Your task to perform on an android device: change timer sound Image 0: 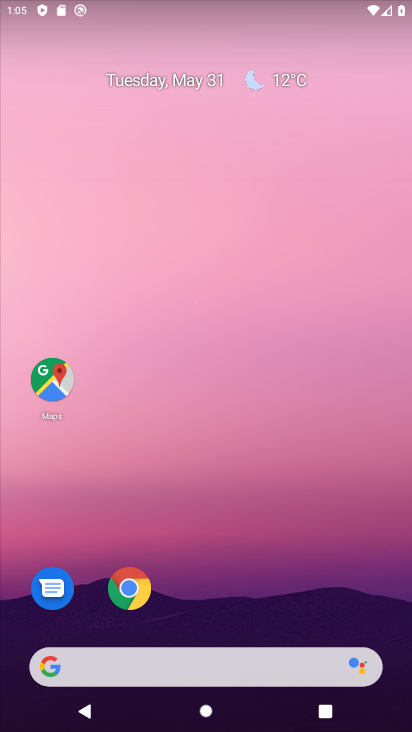
Step 0: drag from (397, 519) to (369, 136)
Your task to perform on an android device: change timer sound Image 1: 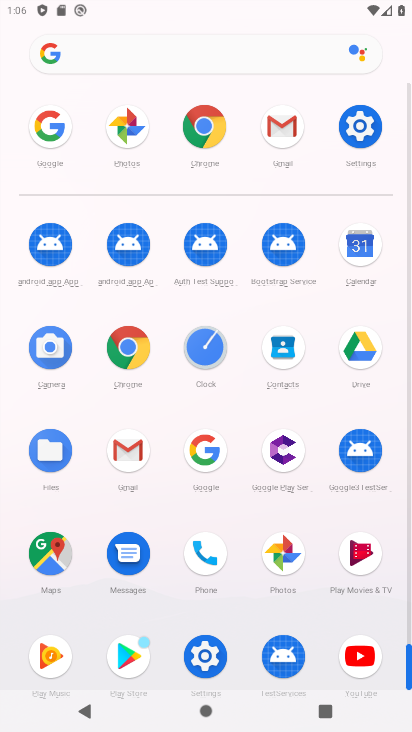
Step 1: click (363, 131)
Your task to perform on an android device: change timer sound Image 2: 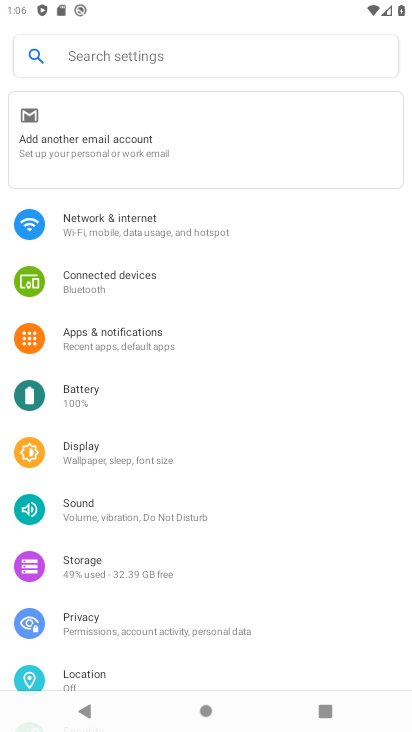
Step 2: press back button
Your task to perform on an android device: change timer sound Image 3: 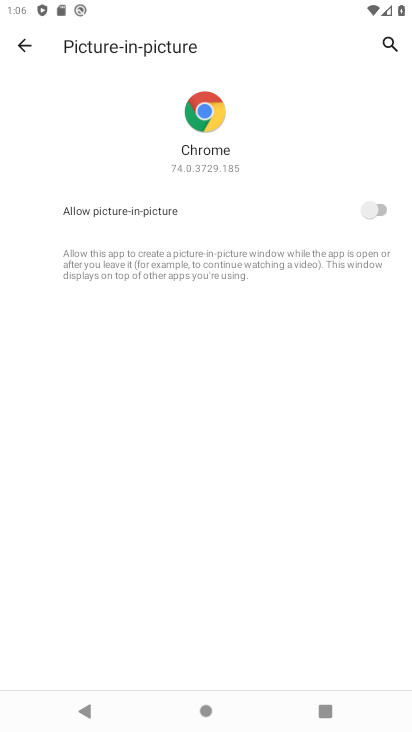
Step 3: press back button
Your task to perform on an android device: change timer sound Image 4: 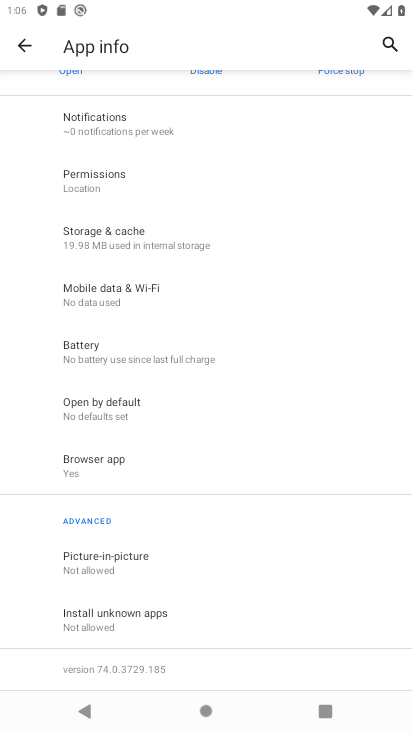
Step 4: drag from (282, 187) to (319, 435)
Your task to perform on an android device: change timer sound Image 5: 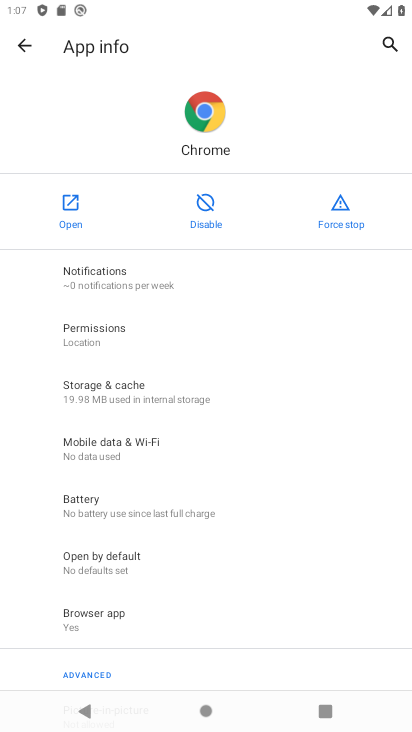
Step 5: drag from (249, 585) to (238, 333)
Your task to perform on an android device: change timer sound Image 6: 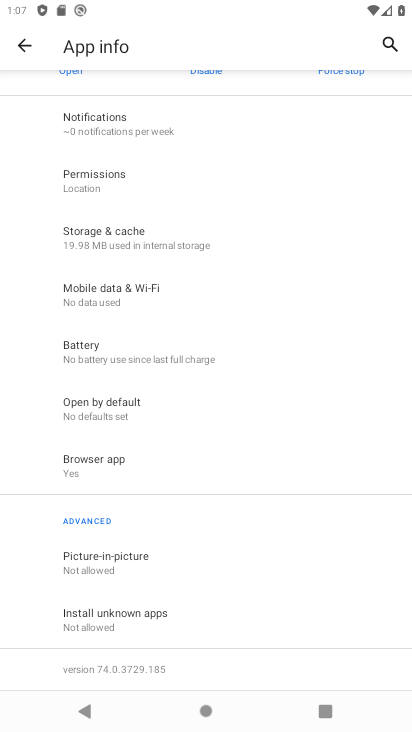
Step 6: drag from (274, 188) to (270, 556)
Your task to perform on an android device: change timer sound Image 7: 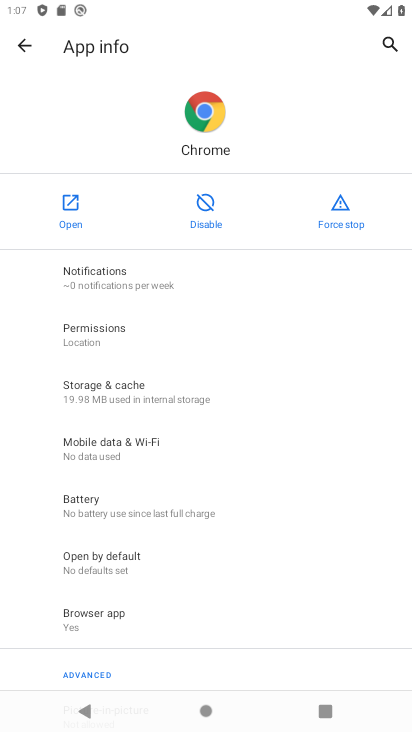
Step 7: click (24, 39)
Your task to perform on an android device: change timer sound Image 8: 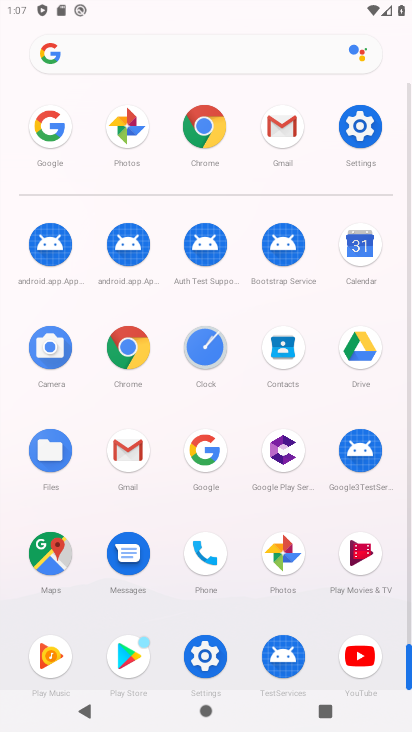
Step 8: click (210, 653)
Your task to perform on an android device: change timer sound Image 9: 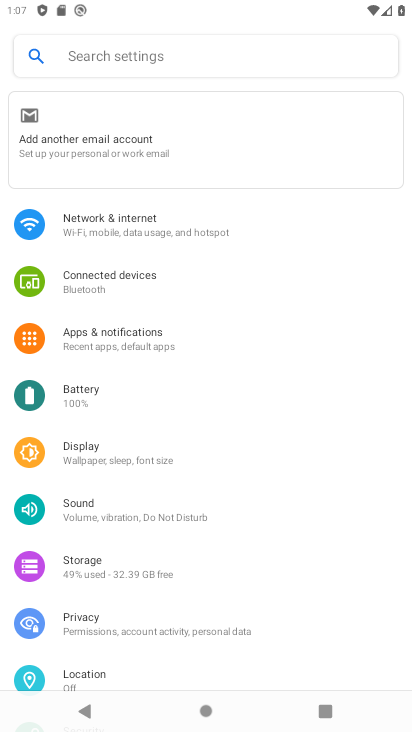
Step 9: click (76, 513)
Your task to perform on an android device: change timer sound Image 10: 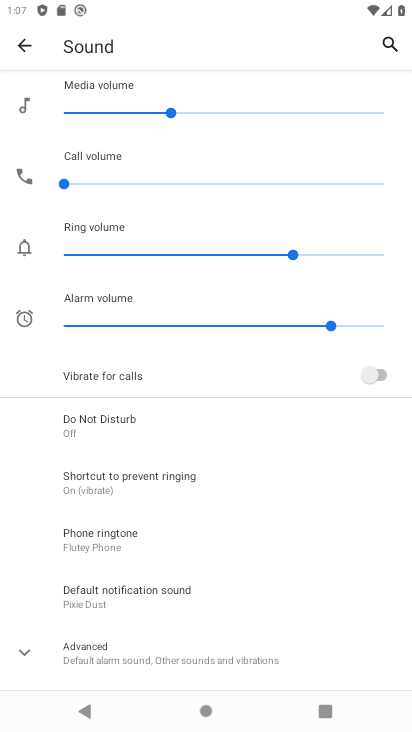
Step 10: task complete